Your task to perform on an android device: Open Youtube and go to the subscriptions tab Image 0: 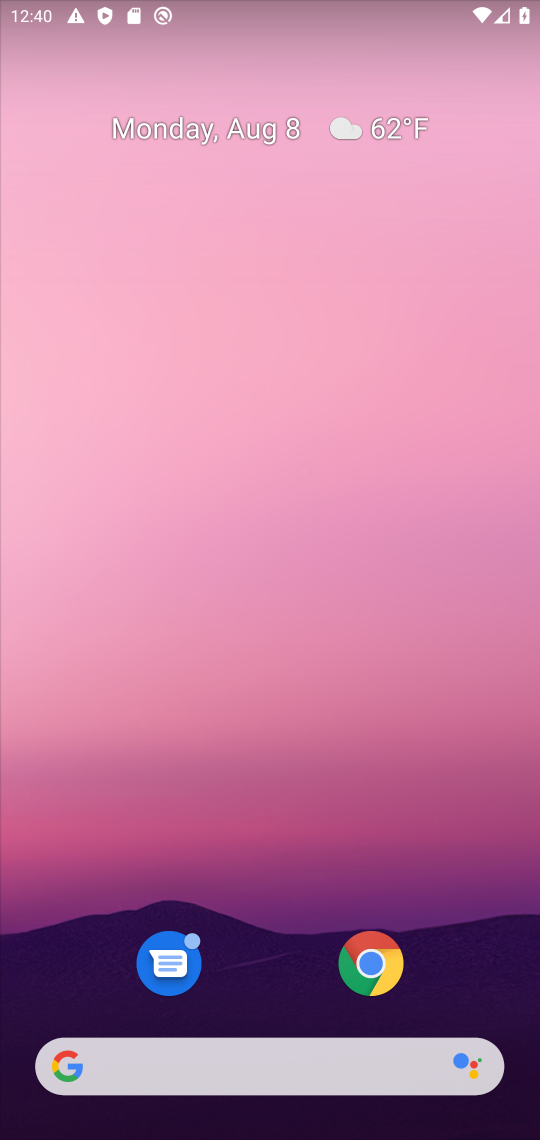
Step 0: drag from (507, 958) to (213, 34)
Your task to perform on an android device: Open Youtube and go to the subscriptions tab Image 1: 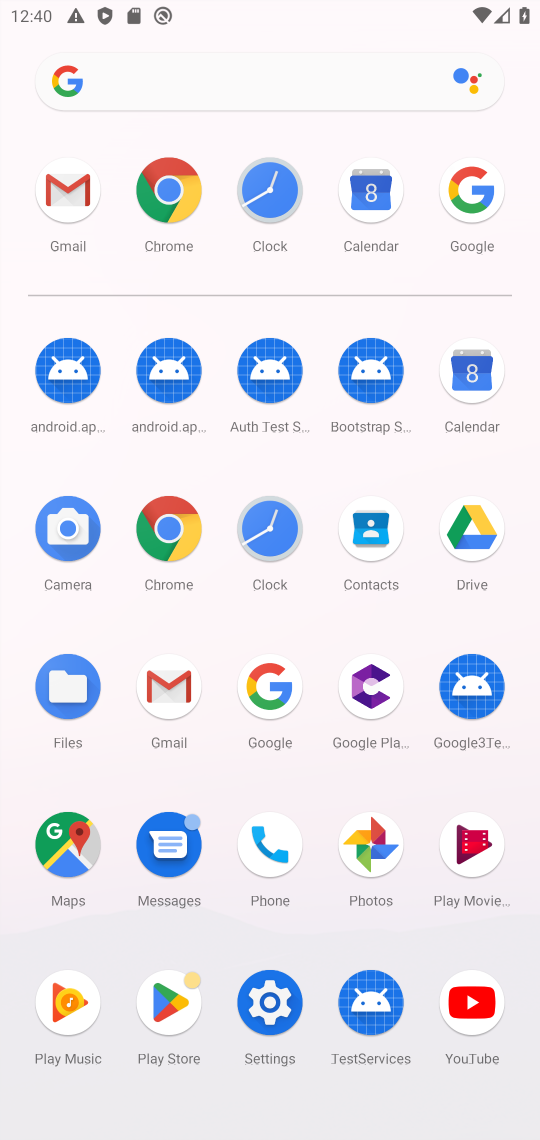
Step 1: click (487, 1020)
Your task to perform on an android device: Open Youtube and go to the subscriptions tab Image 2: 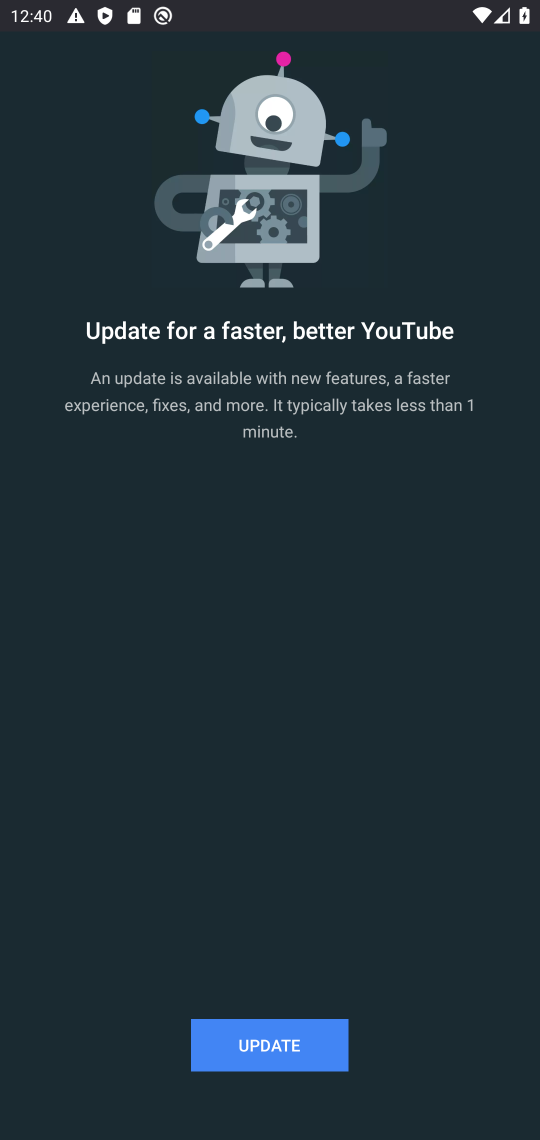
Step 2: task complete